Your task to perform on an android device: Open notification settings Image 0: 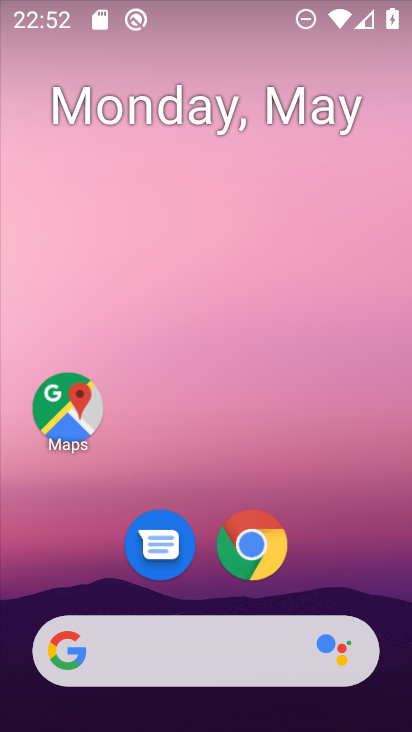
Step 0: drag from (339, 527) to (243, 96)
Your task to perform on an android device: Open notification settings Image 1: 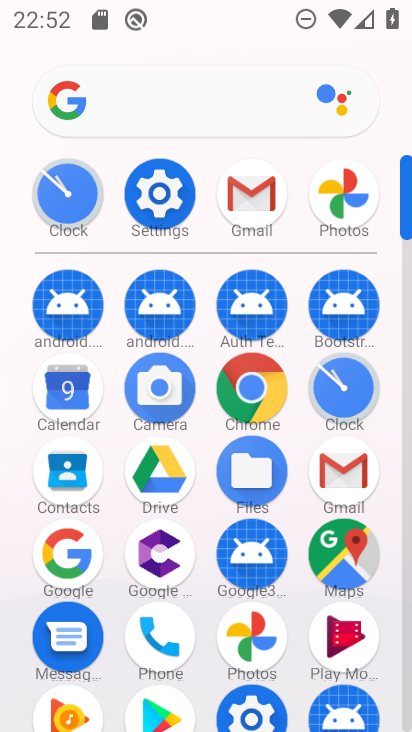
Step 1: click (161, 196)
Your task to perform on an android device: Open notification settings Image 2: 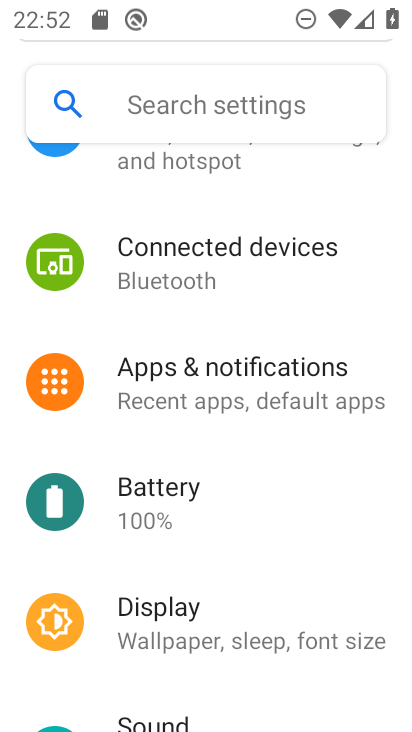
Step 2: click (250, 365)
Your task to perform on an android device: Open notification settings Image 3: 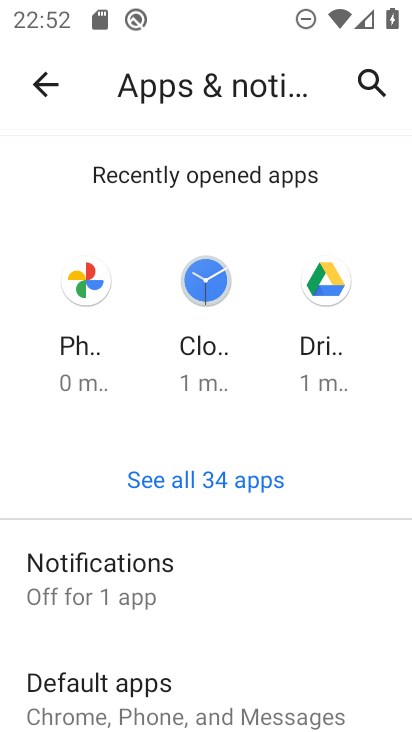
Step 3: task complete